Your task to perform on an android device: change your default location settings in chrome Image 0: 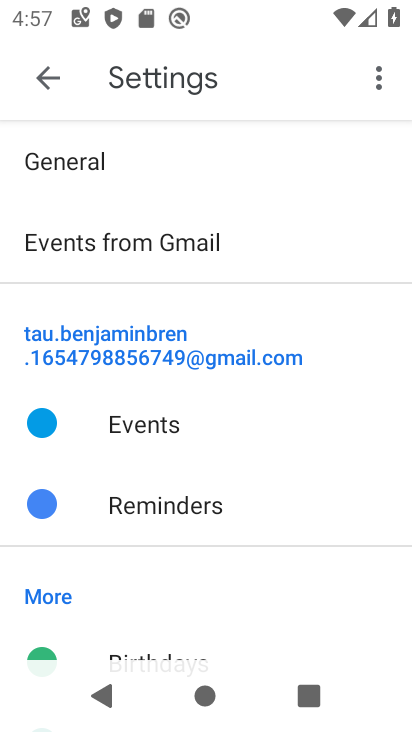
Step 0: press home button
Your task to perform on an android device: change your default location settings in chrome Image 1: 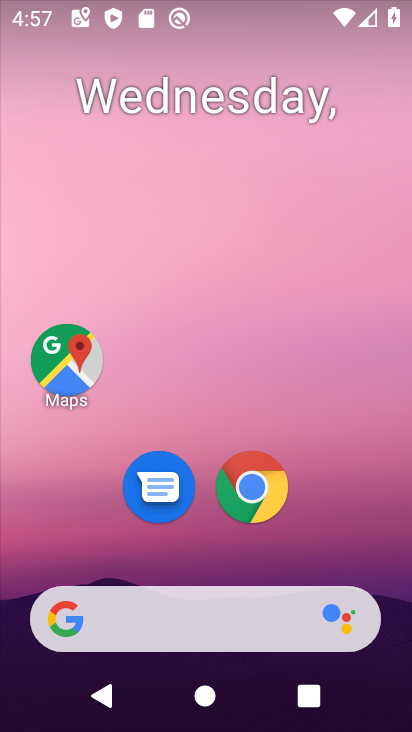
Step 1: drag from (263, 586) to (149, 99)
Your task to perform on an android device: change your default location settings in chrome Image 2: 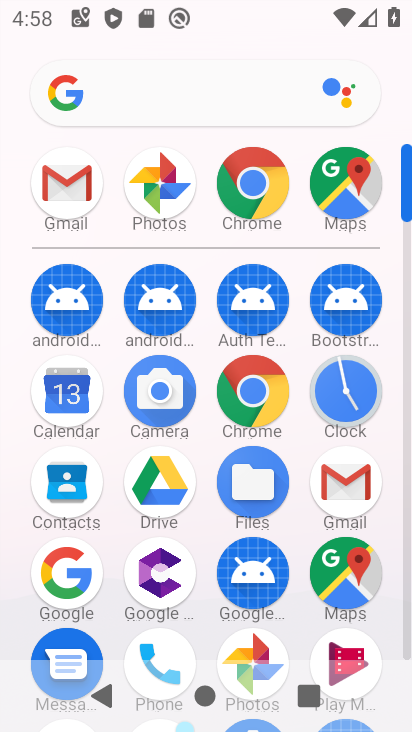
Step 2: drag from (175, 561) to (165, 400)
Your task to perform on an android device: change your default location settings in chrome Image 3: 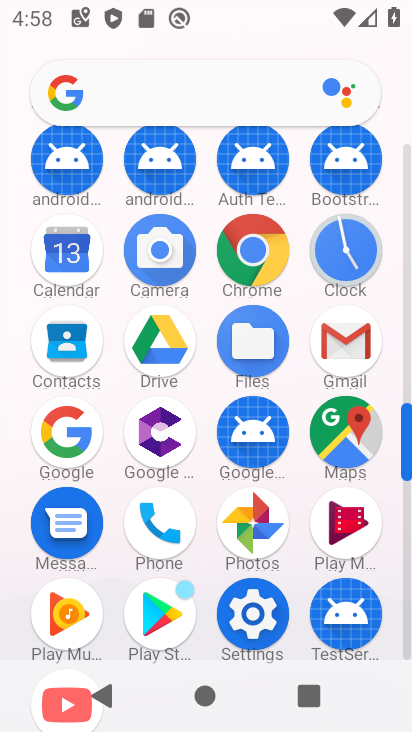
Step 3: click (254, 260)
Your task to perform on an android device: change your default location settings in chrome Image 4: 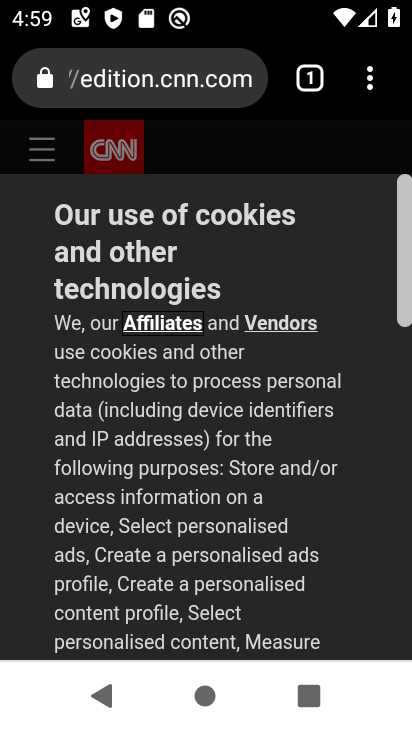
Step 4: click (376, 110)
Your task to perform on an android device: change your default location settings in chrome Image 5: 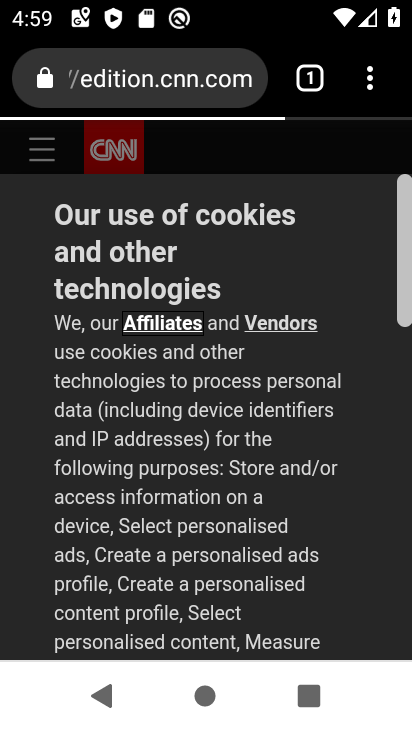
Step 5: click (375, 106)
Your task to perform on an android device: change your default location settings in chrome Image 6: 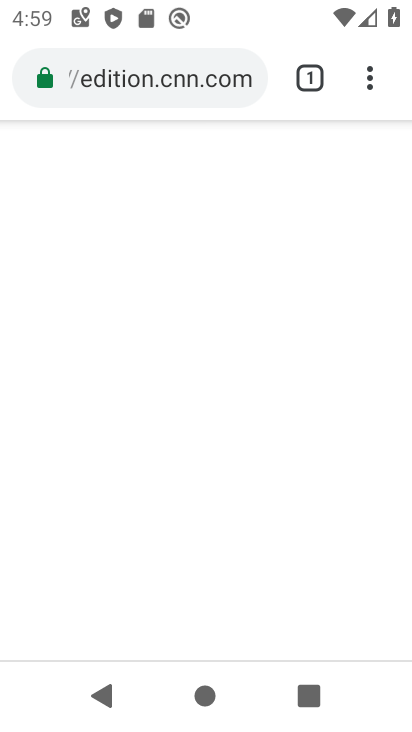
Step 6: click (375, 79)
Your task to perform on an android device: change your default location settings in chrome Image 7: 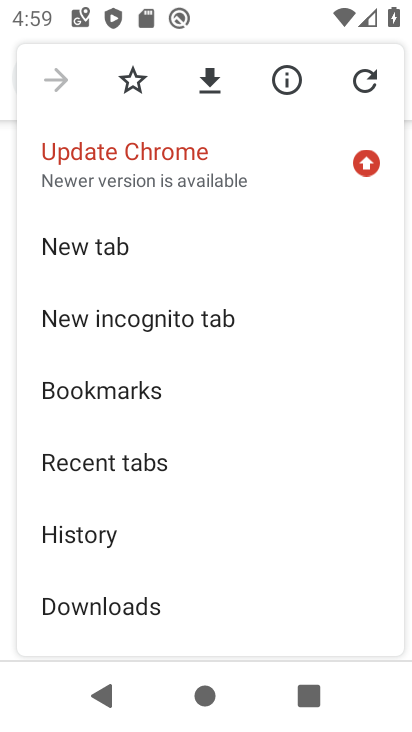
Step 7: drag from (194, 568) to (190, 117)
Your task to perform on an android device: change your default location settings in chrome Image 8: 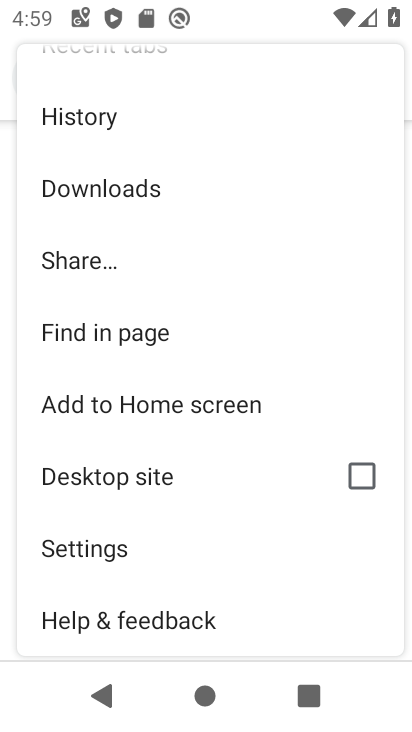
Step 8: click (90, 550)
Your task to perform on an android device: change your default location settings in chrome Image 9: 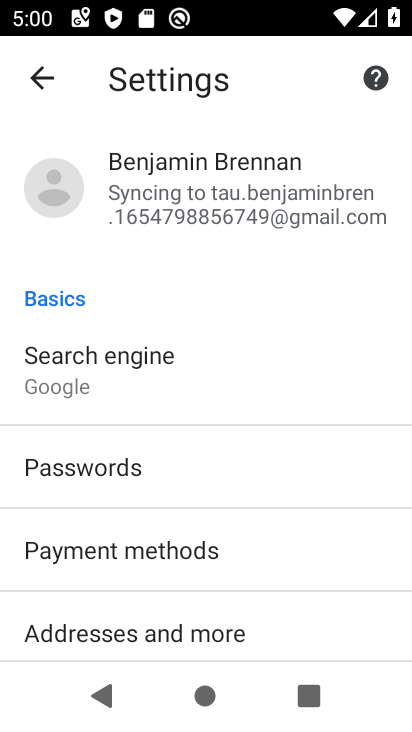
Step 9: drag from (166, 534) to (168, 194)
Your task to perform on an android device: change your default location settings in chrome Image 10: 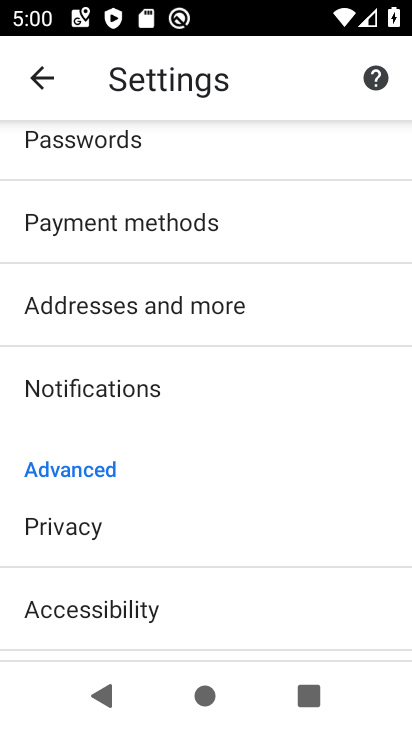
Step 10: drag from (181, 592) to (193, 272)
Your task to perform on an android device: change your default location settings in chrome Image 11: 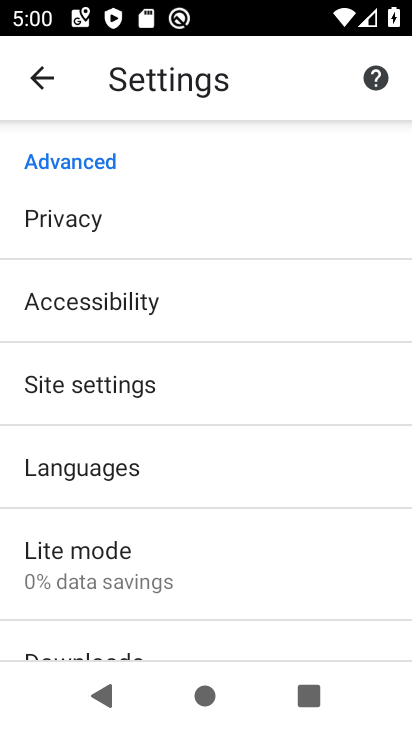
Step 11: click (115, 390)
Your task to perform on an android device: change your default location settings in chrome Image 12: 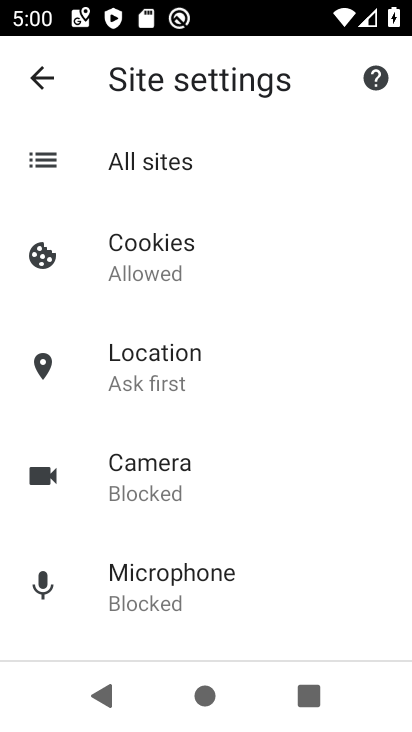
Step 12: drag from (220, 489) to (223, 296)
Your task to perform on an android device: change your default location settings in chrome Image 13: 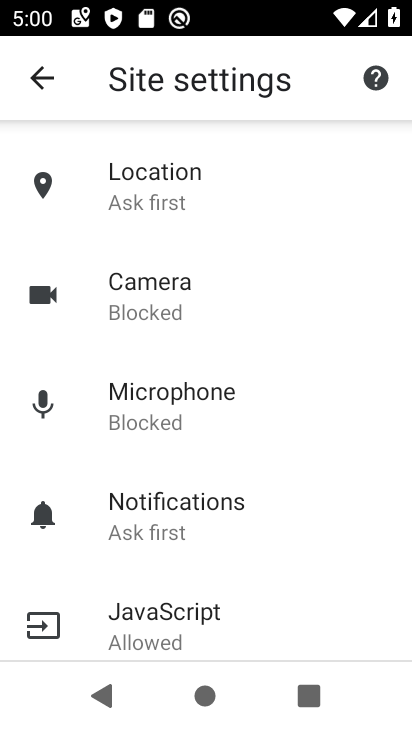
Step 13: click (170, 197)
Your task to perform on an android device: change your default location settings in chrome Image 14: 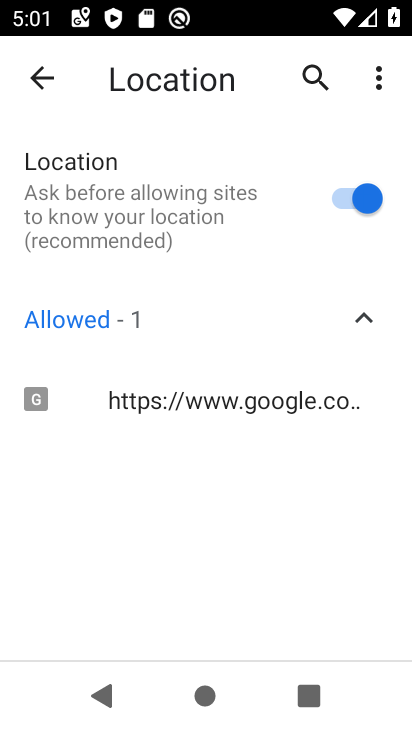
Step 14: click (316, 205)
Your task to perform on an android device: change your default location settings in chrome Image 15: 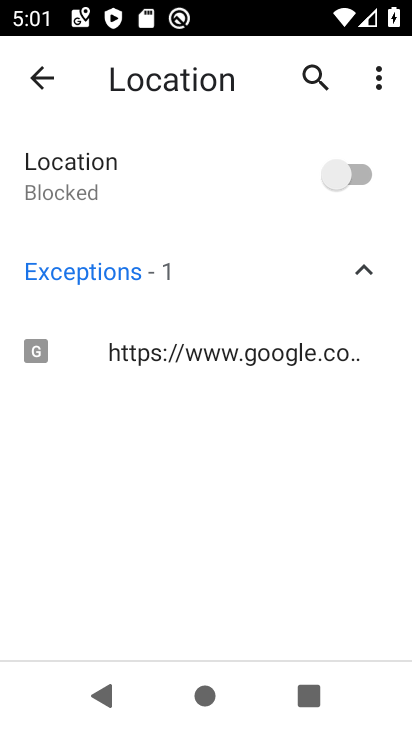
Step 15: task complete